Your task to perform on an android device: Open the map Image 0: 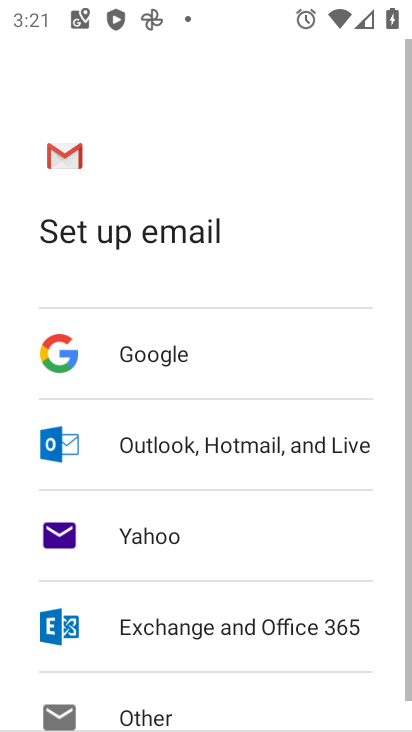
Step 0: press home button
Your task to perform on an android device: Open the map Image 1: 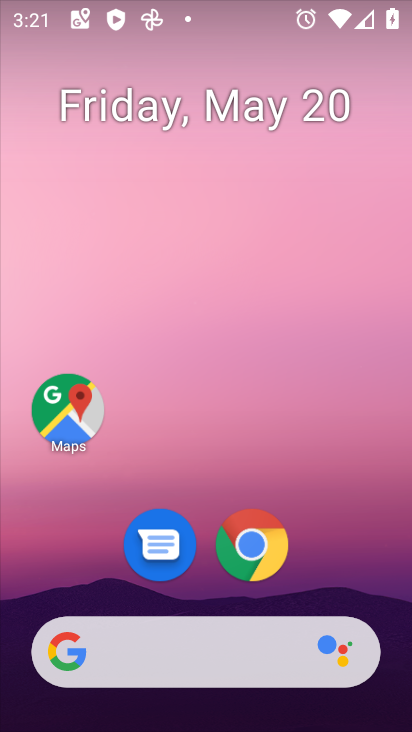
Step 1: click (50, 399)
Your task to perform on an android device: Open the map Image 2: 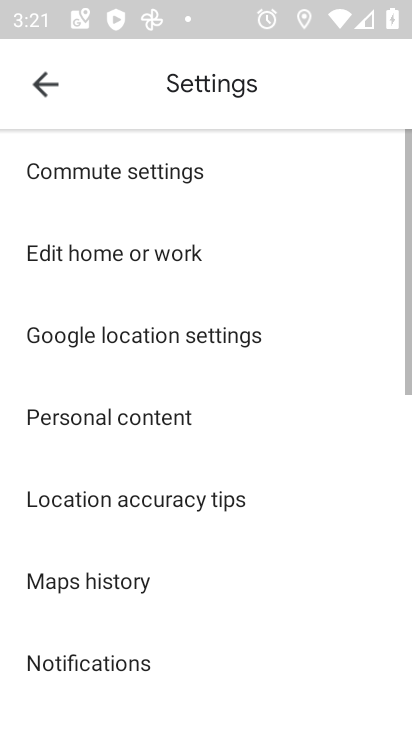
Step 2: click (42, 93)
Your task to perform on an android device: Open the map Image 3: 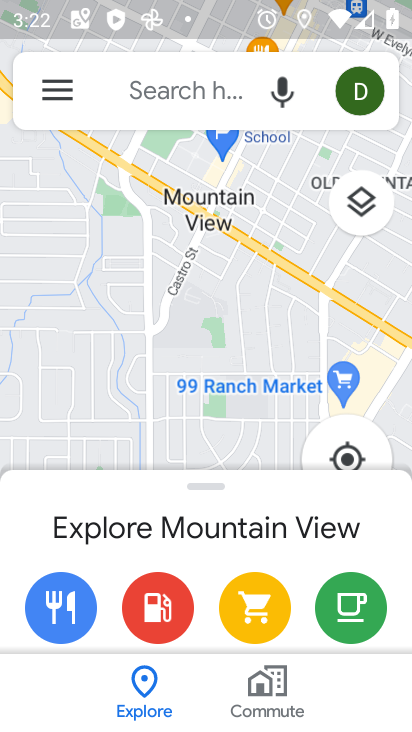
Step 3: task complete